Your task to perform on an android device: turn on javascript in the chrome app Image 0: 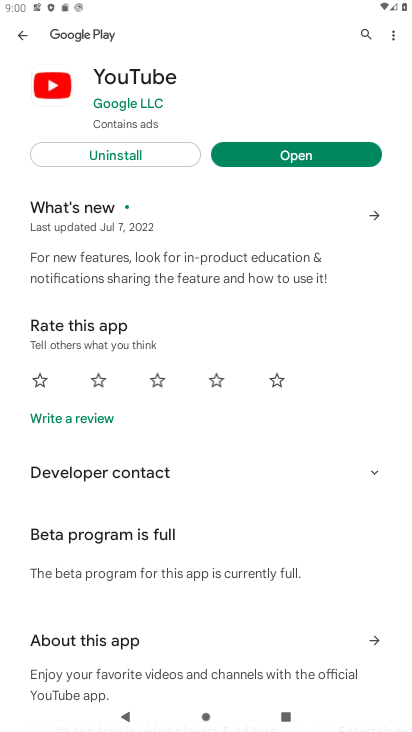
Step 0: press home button
Your task to perform on an android device: turn on javascript in the chrome app Image 1: 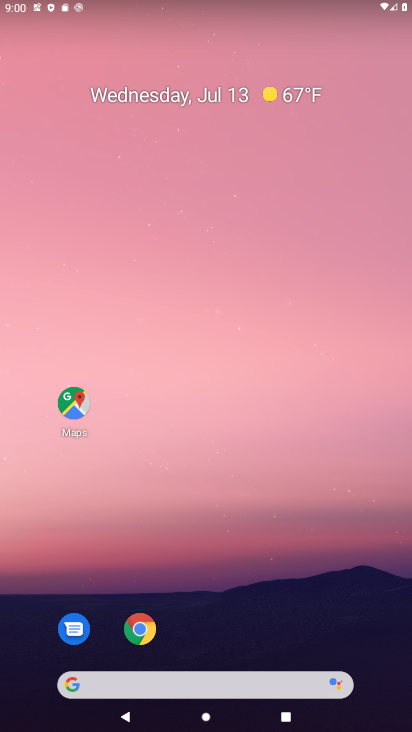
Step 1: drag from (226, 593) to (213, 49)
Your task to perform on an android device: turn on javascript in the chrome app Image 2: 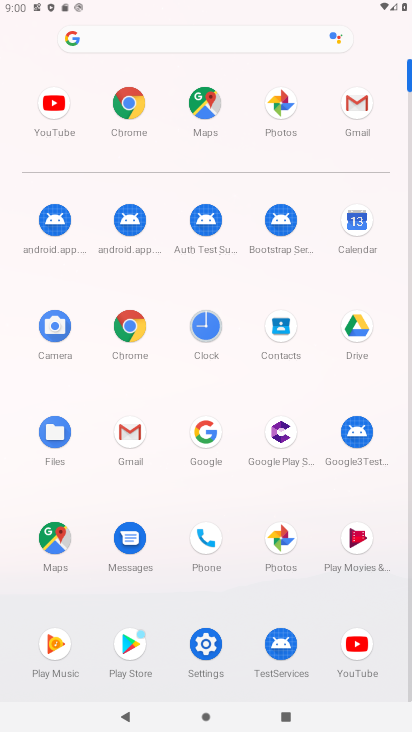
Step 2: click (132, 331)
Your task to perform on an android device: turn on javascript in the chrome app Image 3: 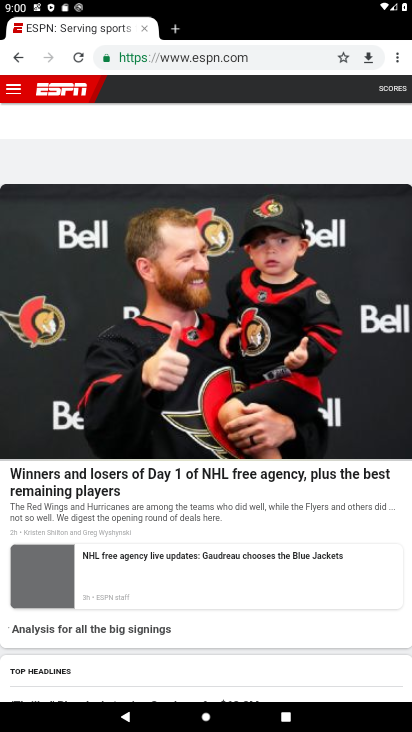
Step 3: click (400, 51)
Your task to perform on an android device: turn on javascript in the chrome app Image 4: 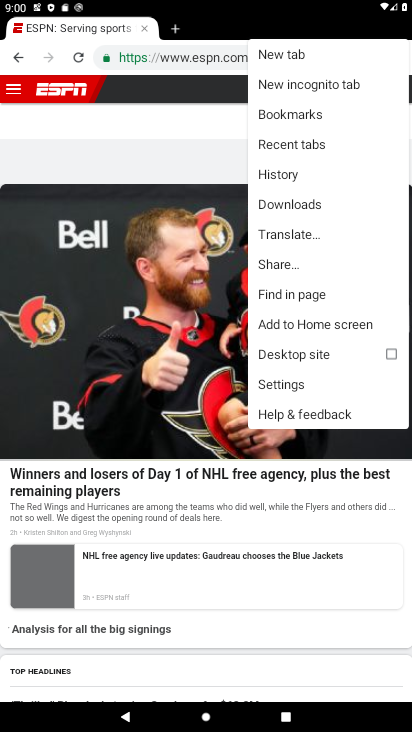
Step 4: click (281, 382)
Your task to perform on an android device: turn on javascript in the chrome app Image 5: 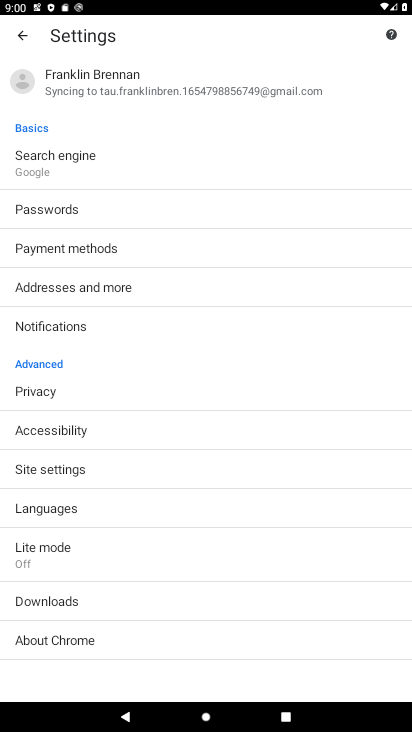
Step 5: click (72, 468)
Your task to perform on an android device: turn on javascript in the chrome app Image 6: 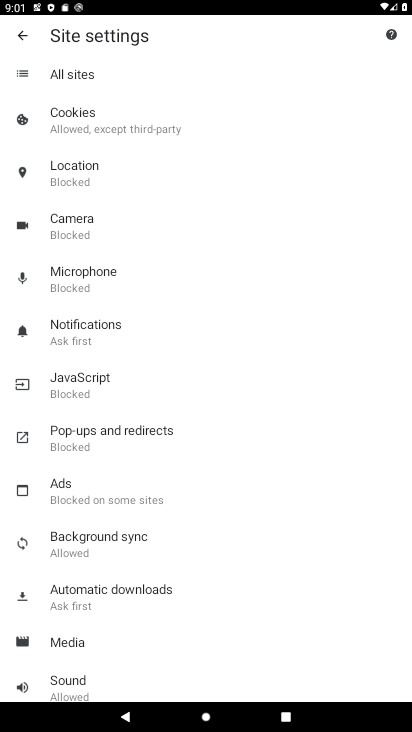
Step 6: click (104, 385)
Your task to perform on an android device: turn on javascript in the chrome app Image 7: 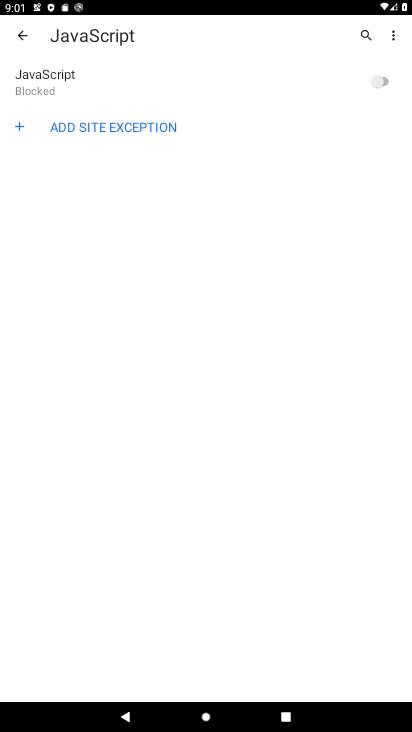
Step 7: click (382, 78)
Your task to perform on an android device: turn on javascript in the chrome app Image 8: 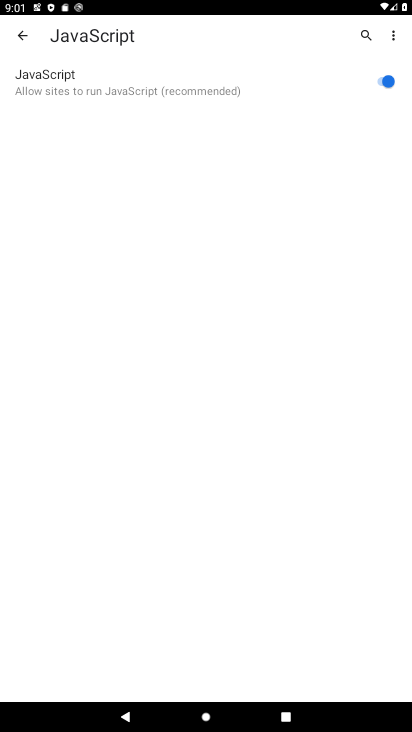
Step 8: task complete